Your task to perform on an android device: open chrome privacy settings Image 0: 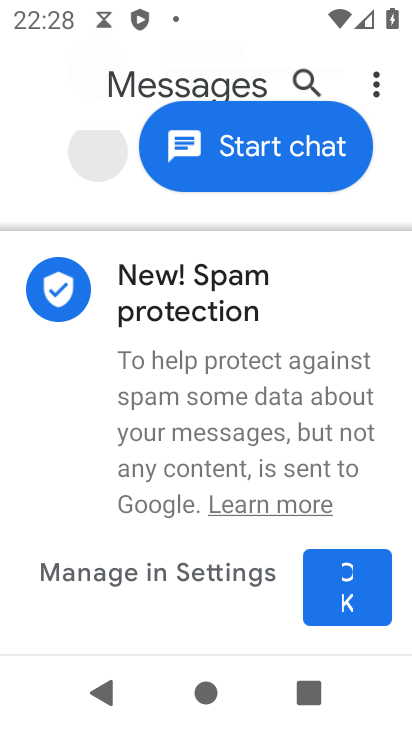
Step 0: press home button
Your task to perform on an android device: open chrome privacy settings Image 1: 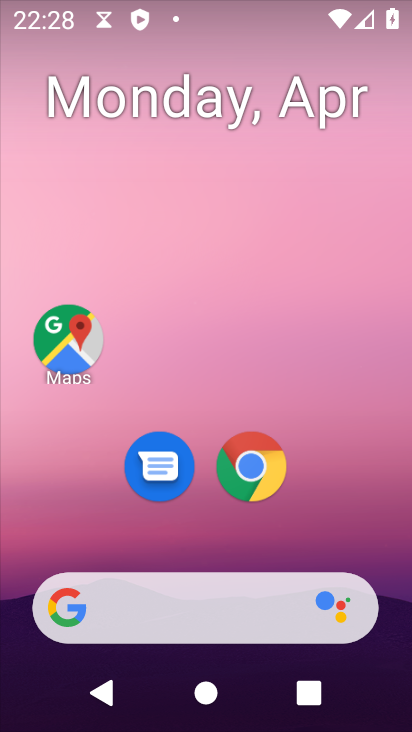
Step 1: drag from (159, 553) to (292, 164)
Your task to perform on an android device: open chrome privacy settings Image 2: 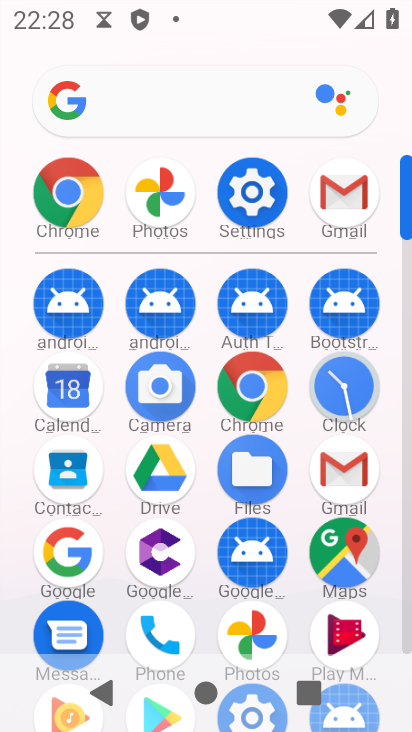
Step 2: click (70, 192)
Your task to perform on an android device: open chrome privacy settings Image 3: 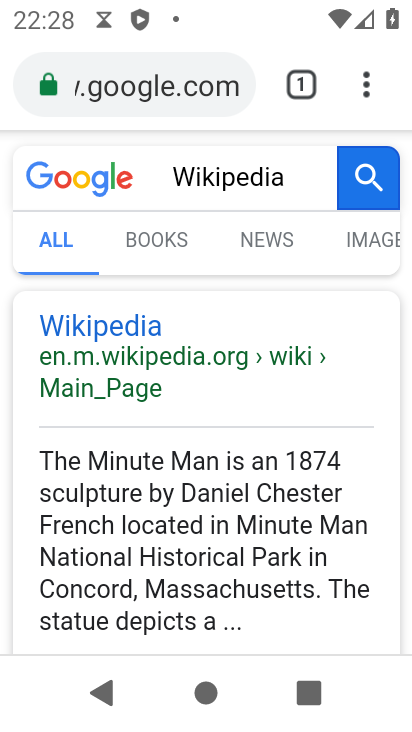
Step 3: click (373, 88)
Your task to perform on an android device: open chrome privacy settings Image 4: 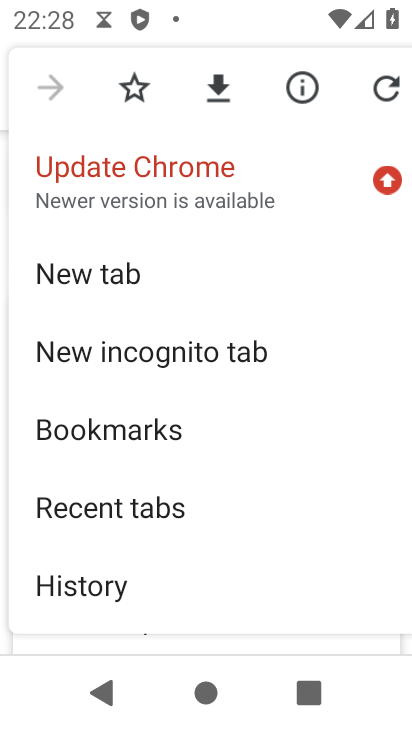
Step 4: drag from (195, 473) to (223, 353)
Your task to perform on an android device: open chrome privacy settings Image 5: 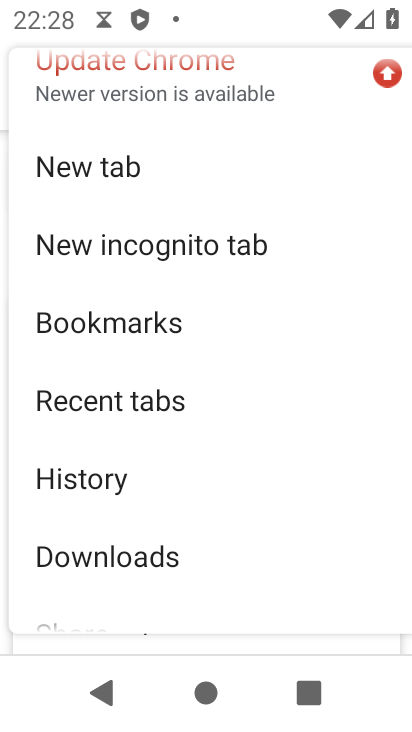
Step 5: drag from (200, 548) to (262, 394)
Your task to perform on an android device: open chrome privacy settings Image 6: 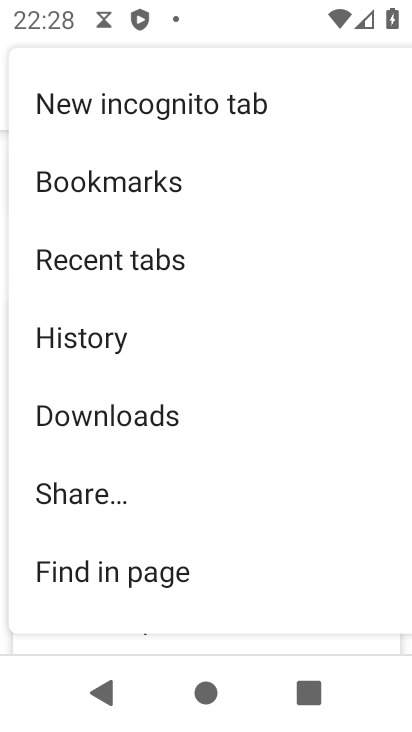
Step 6: drag from (195, 531) to (230, 384)
Your task to perform on an android device: open chrome privacy settings Image 7: 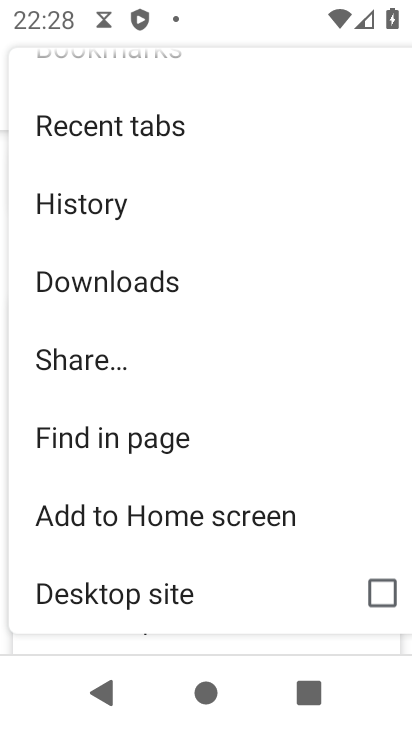
Step 7: drag from (207, 535) to (275, 396)
Your task to perform on an android device: open chrome privacy settings Image 8: 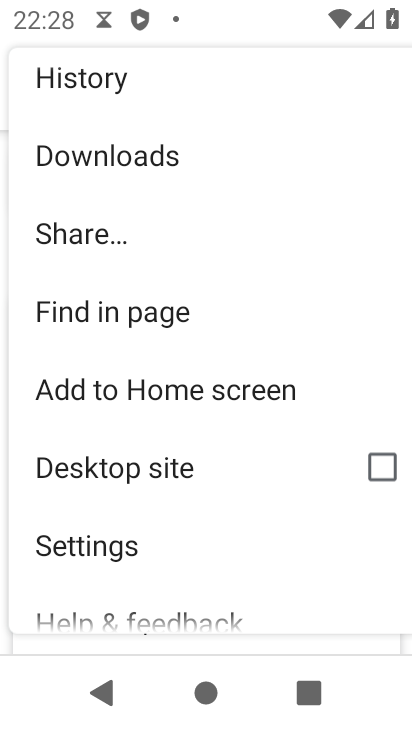
Step 8: click (107, 542)
Your task to perform on an android device: open chrome privacy settings Image 9: 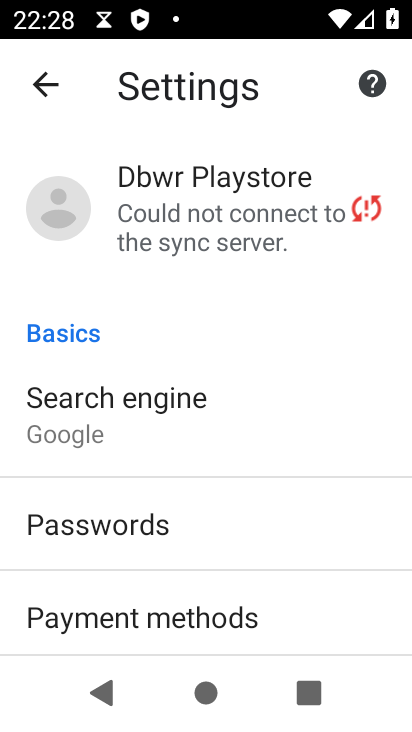
Step 9: drag from (203, 575) to (273, 355)
Your task to perform on an android device: open chrome privacy settings Image 10: 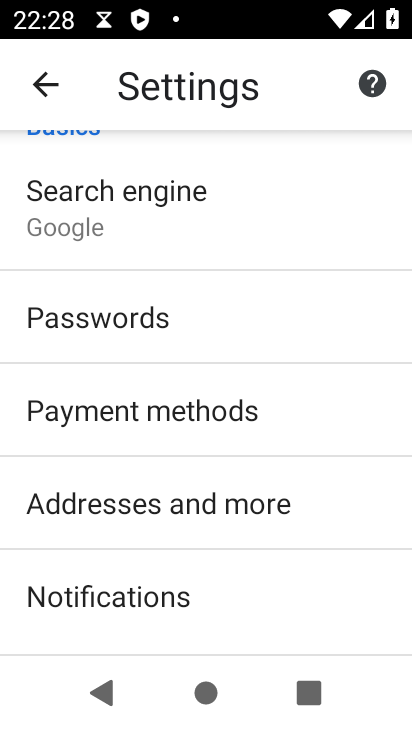
Step 10: drag from (183, 601) to (272, 436)
Your task to perform on an android device: open chrome privacy settings Image 11: 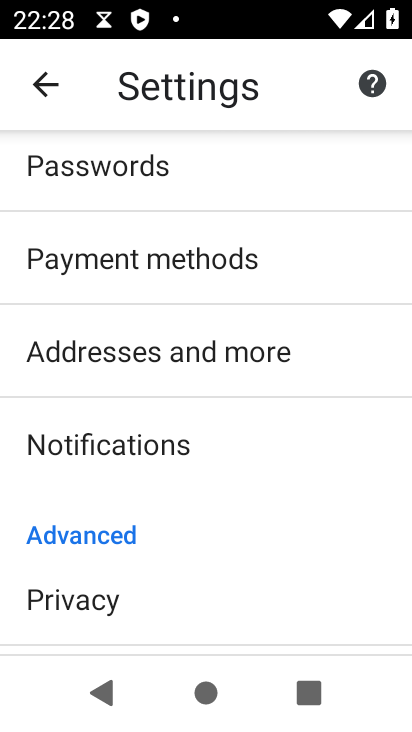
Step 11: drag from (184, 577) to (256, 412)
Your task to perform on an android device: open chrome privacy settings Image 12: 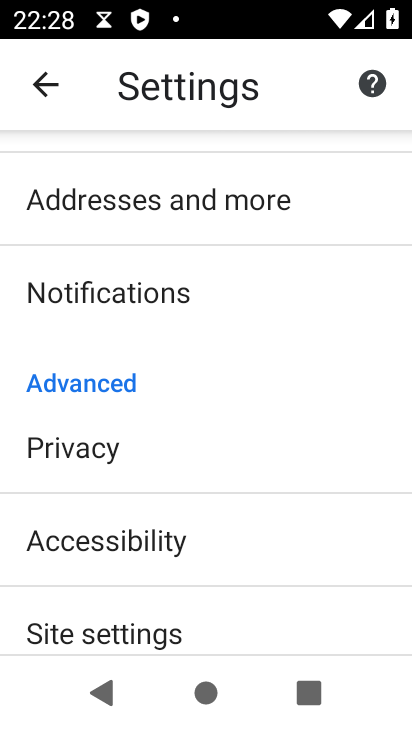
Step 12: click (106, 452)
Your task to perform on an android device: open chrome privacy settings Image 13: 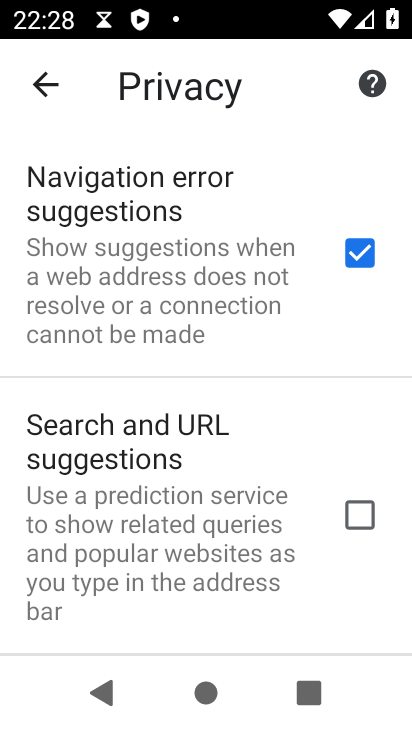
Step 13: task complete